Your task to perform on an android device: Open sound settings Image 0: 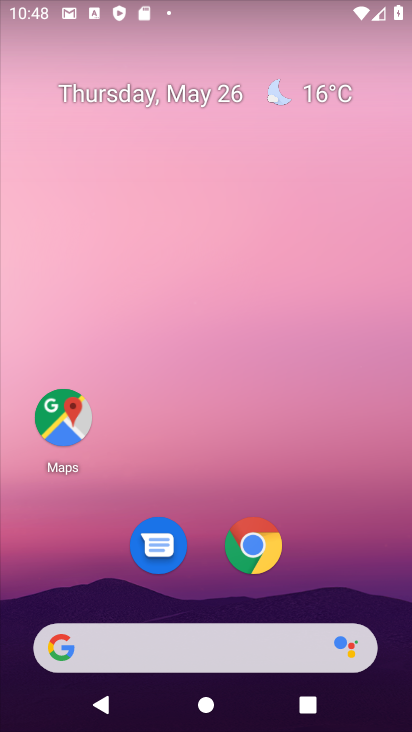
Step 0: press home button
Your task to perform on an android device: Open sound settings Image 1: 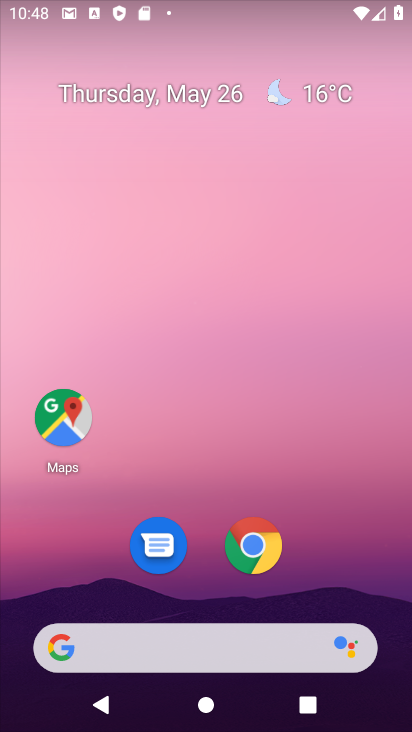
Step 1: drag from (211, 615) to (186, 220)
Your task to perform on an android device: Open sound settings Image 2: 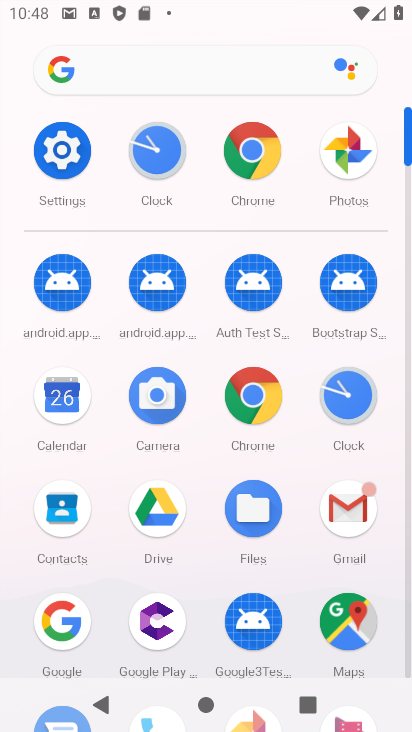
Step 2: click (64, 142)
Your task to perform on an android device: Open sound settings Image 3: 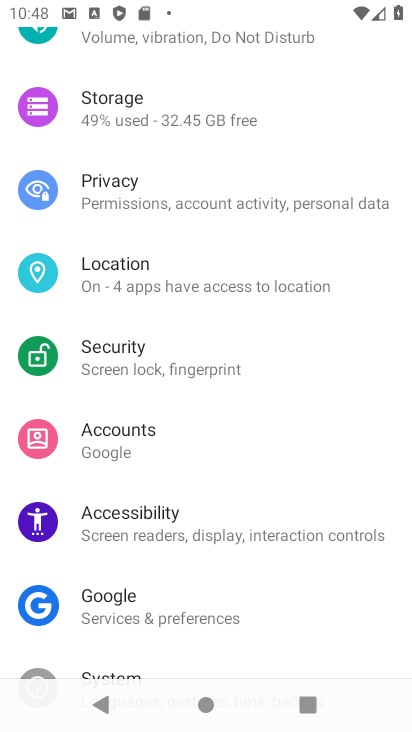
Step 3: drag from (322, 120) to (316, 469)
Your task to perform on an android device: Open sound settings Image 4: 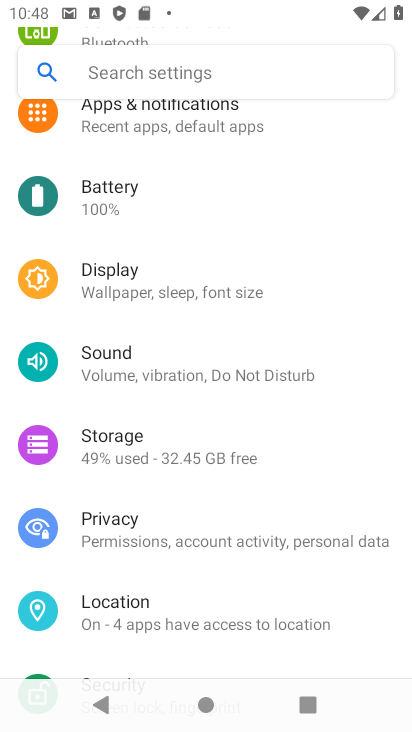
Step 4: click (105, 360)
Your task to perform on an android device: Open sound settings Image 5: 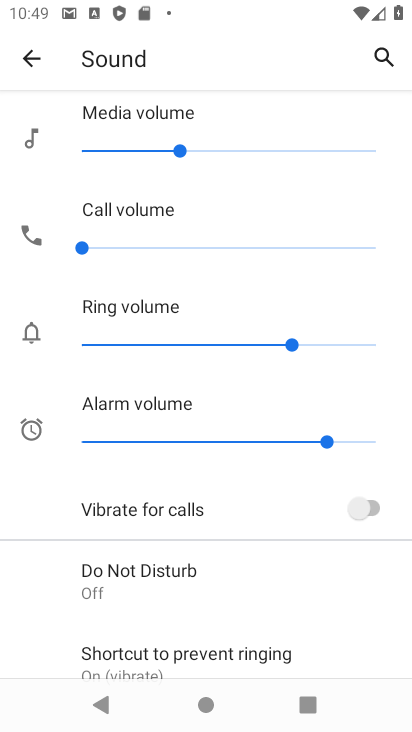
Step 5: task complete